Your task to perform on an android device: uninstall "Pinterest" Image 0: 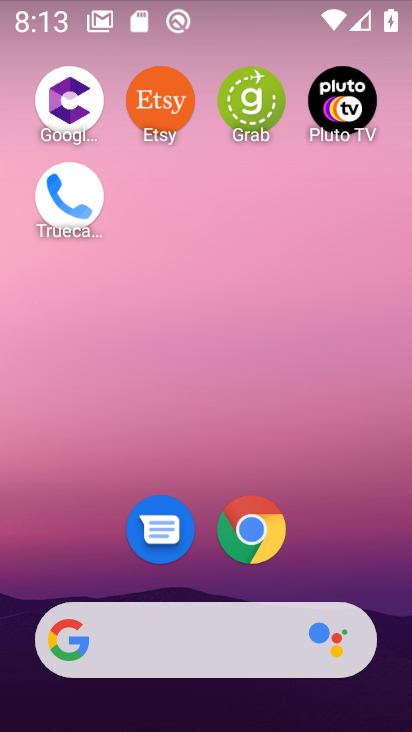
Step 0: drag from (217, 730) to (216, 144)
Your task to perform on an android device: uninstall "Pinterest" Image 1: 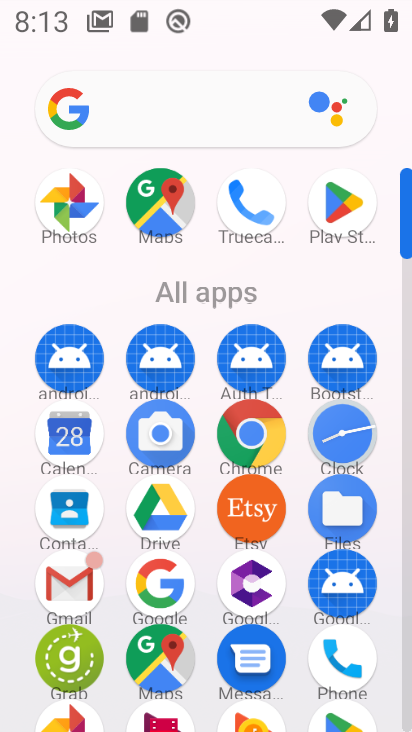
Step 1: click (339, 204)
Your task to perform on an android device: uninstall "Pinterest" Image 2: 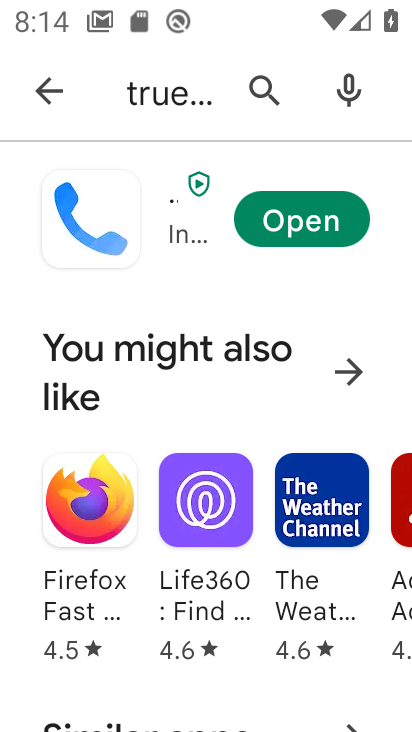
Step 2: click (268, 90)
Your task to perform on an android device: uninstall "Pinterest" Image 3: 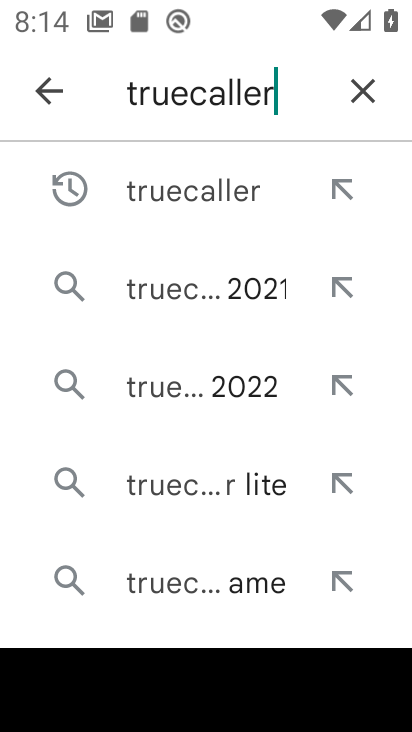
Step 3: click (364, 87)
Your task to perform on an android device: uninstall "Pinterest" Image 4: 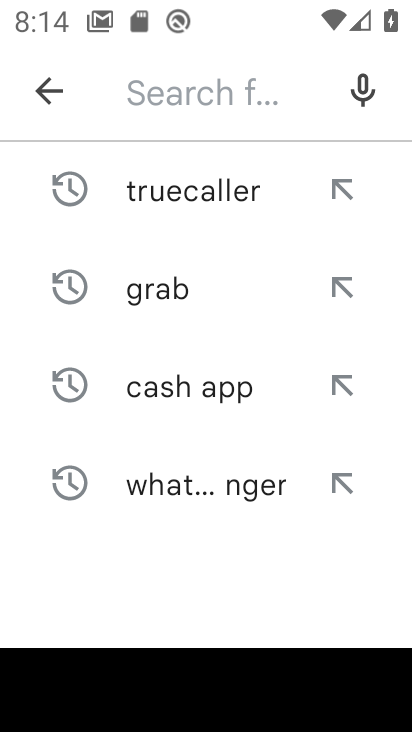
Step 4: type "Pinterest"
Your task to perform on an android device: uninstall "Pinterest" Image 5: 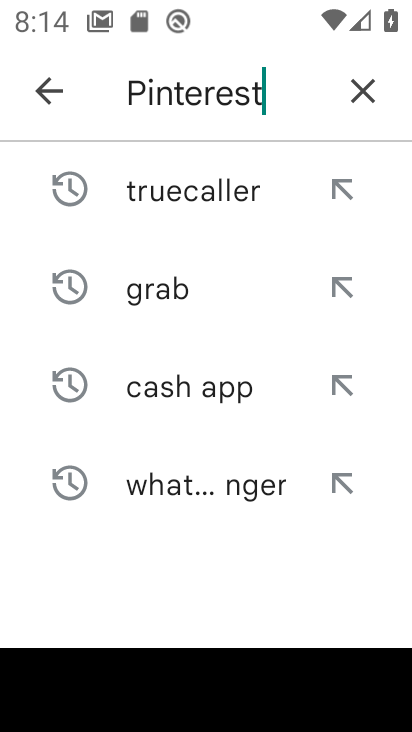
Step 5: type ""
Your task to perform on an android device: uninstall "Pinterest" Image 6: 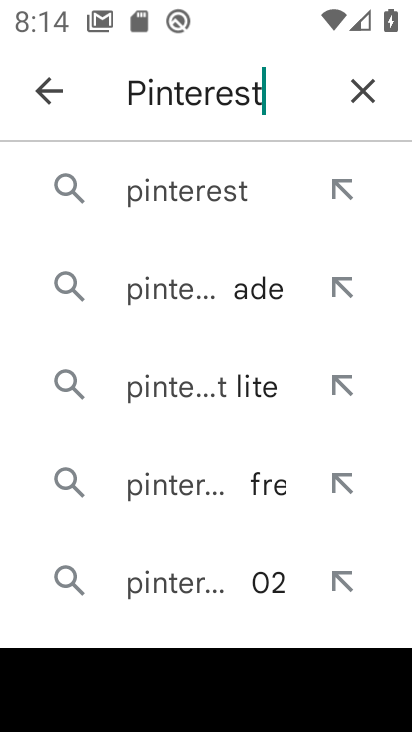
Step 6: click (183, 190)
Your task to perform on an android device: uninstall "Pinterest" Image 7: 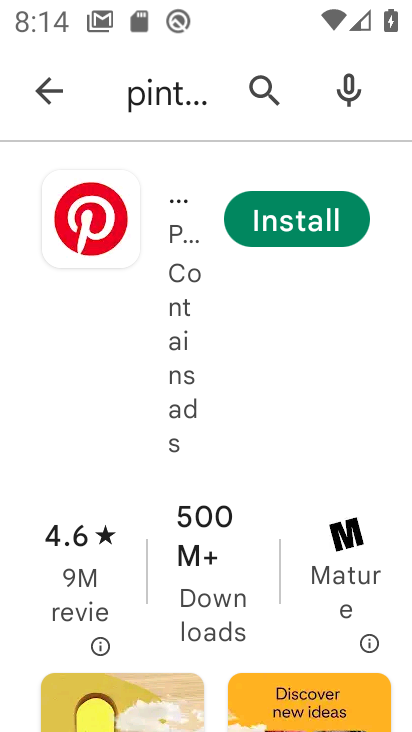
Step 7: task complete